Your task to perform on an android device: turn off notifications settings in the gmail app Image 0: 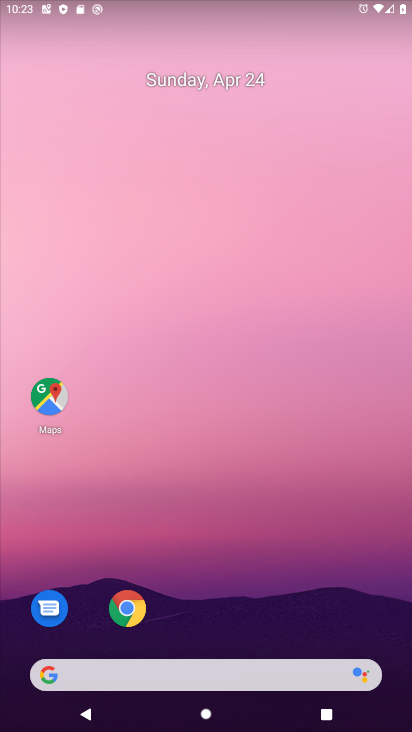
Step 0: drag from (244, 577) to (214, 47)
Your task to perform on an android device: turn off notifications settings in the gmail app Image 1: 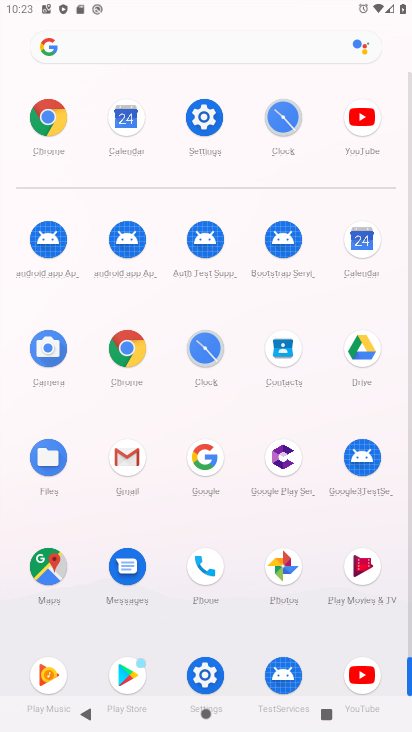
Step 1: drag from (7, 587) to (17, 337)
Your task to perform on an android device: turn off notifications settings in the gmail app Image 2: 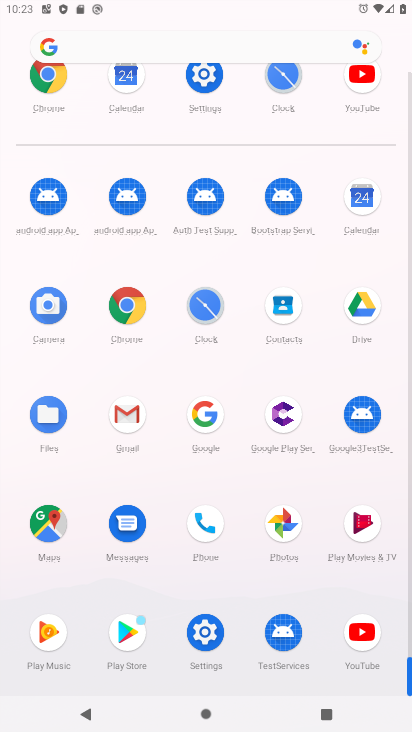
Step 2: click (131, 415)
Your task to perform on an android device: turn off notifications settings in the gmail app Image 3: 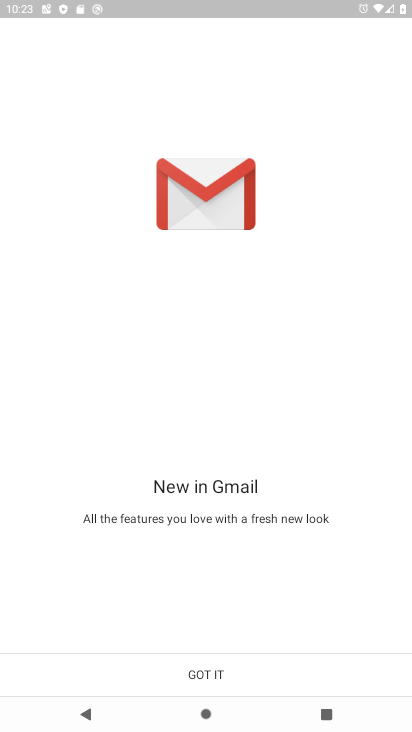
Step 3: click (217, 672)
Your task to perform on an android device: turn off notifications settings in the gmail app Image 4: 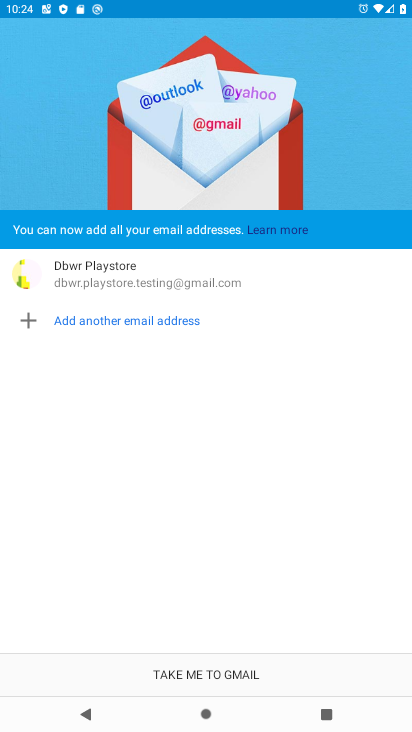
Step 4: click (166, 663)
Your task to perform on an android device: turn off notifications settings in the gmail app Image 5: 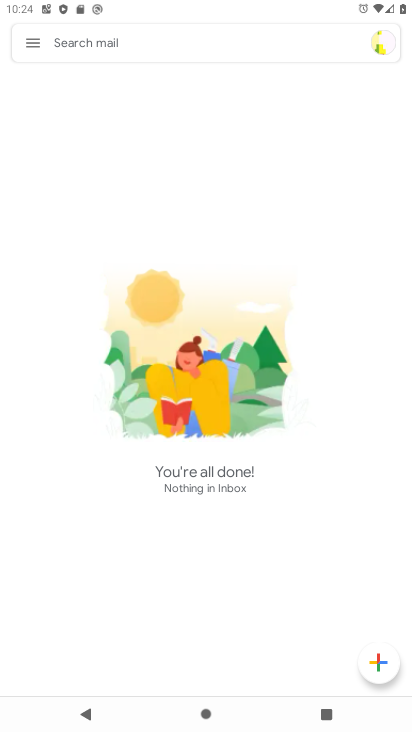
Step 5: click (40, 45)
Your task to perform on an android device: turn off notifications settings in the gmail app Image 6: 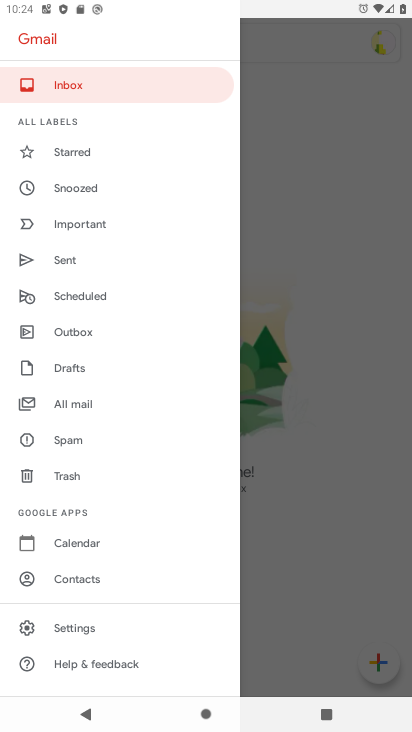
Step 6: click (73, 633)
Your task to perform on an android device: turn off notifications settings in the gmail app Image 7: 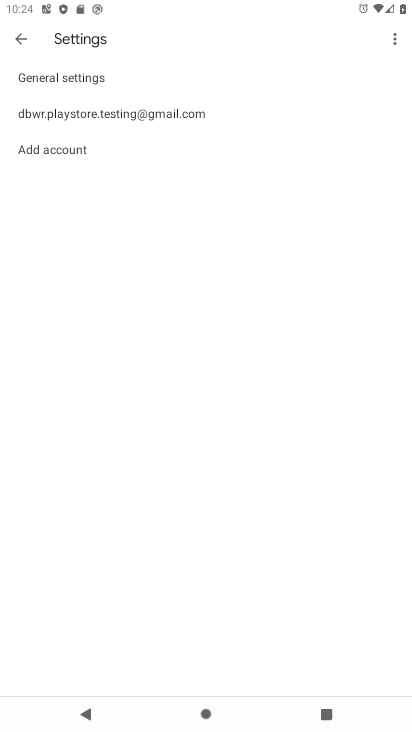
Step 7: click (97, 119)
Your task to perform on an android device: turn off notifications settings in the gmail app Image 8: 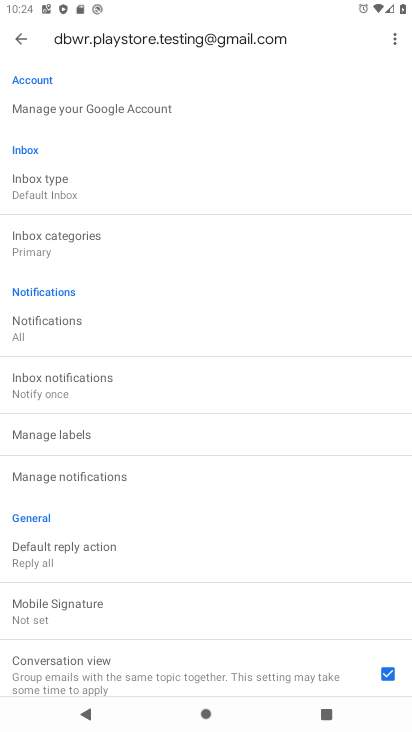
Step 8: click (66, 472)
Your task to perform on an android device: turn off notifications settings in the gmail app Image 9: 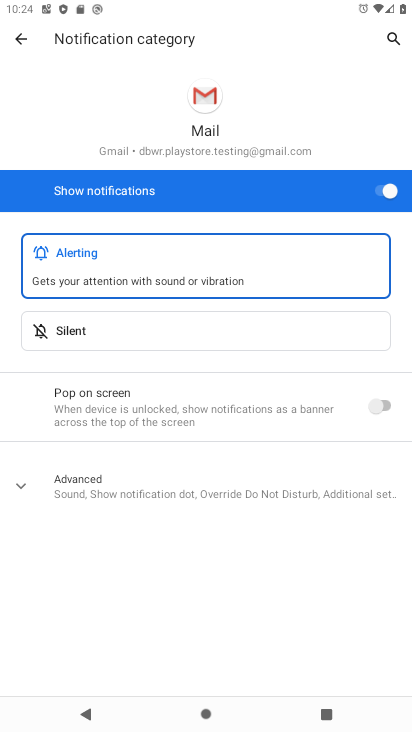
Step 9: click (373, 175)
Your task to perform on an android device: turn off notifications settings in the gmail app Image 10: 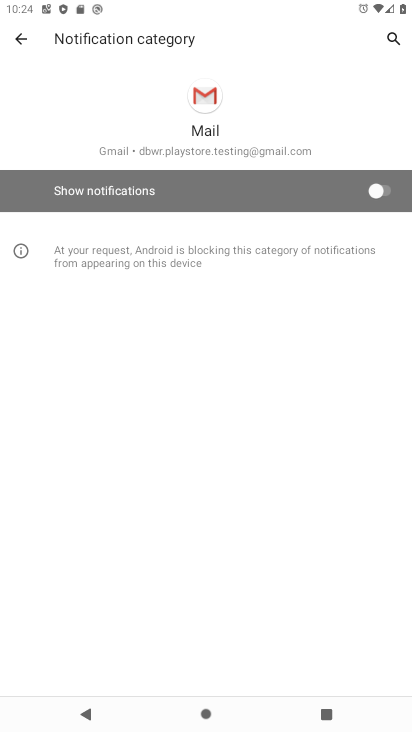
Step 10: task complete